Your task to perform on an android device: turn off picture-in-picture Image 0: 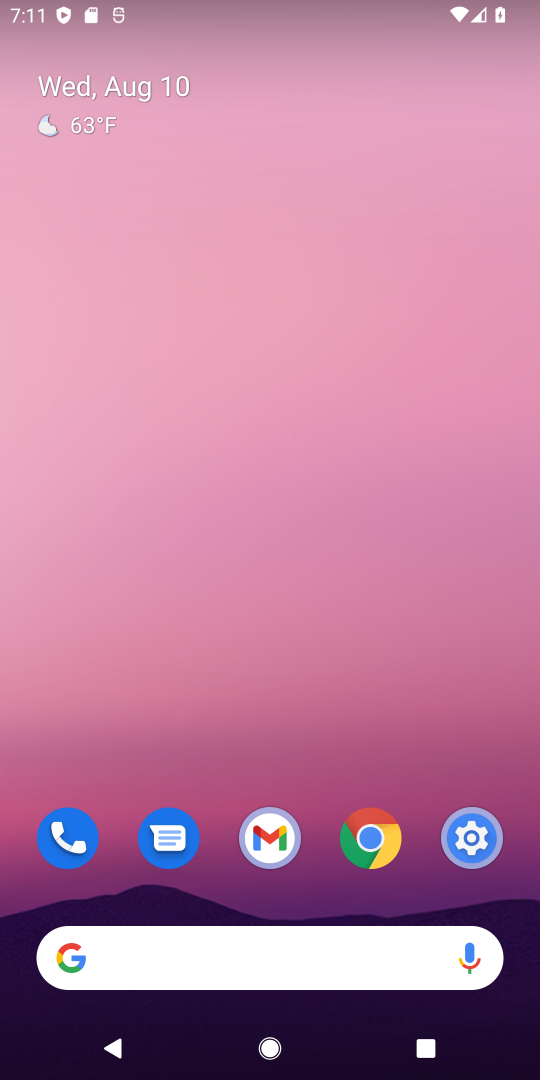
Step 0: click (371, 810)
Your task to perform on an android device: turn off picture-in-picture Image 1: 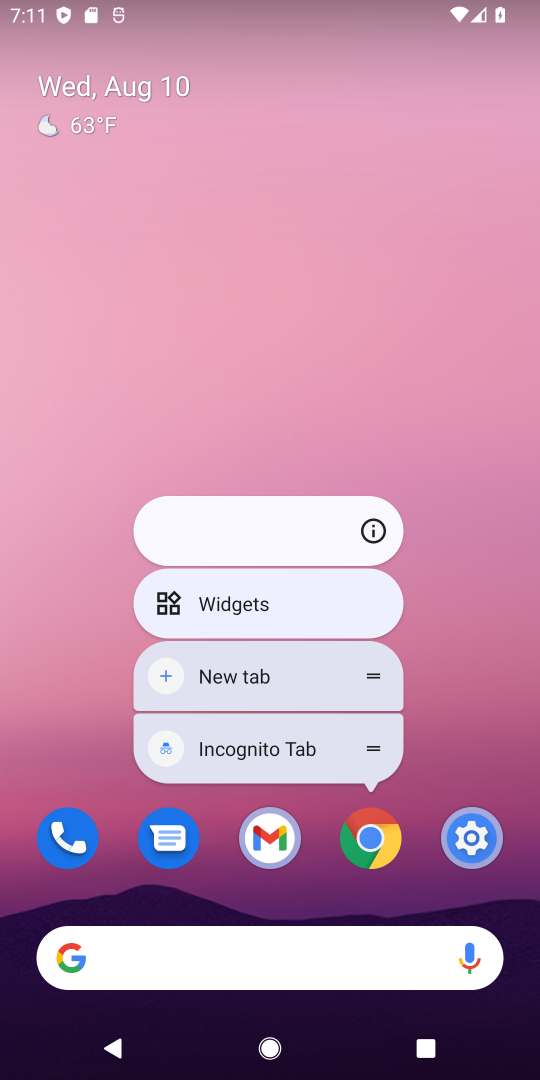
Step 1: click (367, 524)
Your task to perform on an android device: turn off picture-in-picture Image 2: 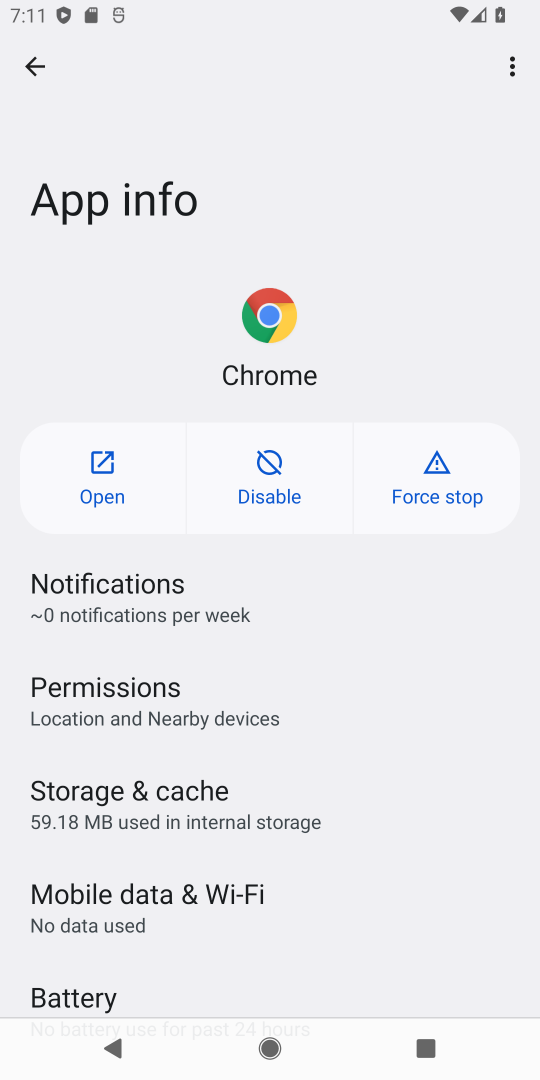
Step 2: drag from (308, 853) to (476, 103)
Your task to perform on an android device: turn off picture-in-picture Image 3: 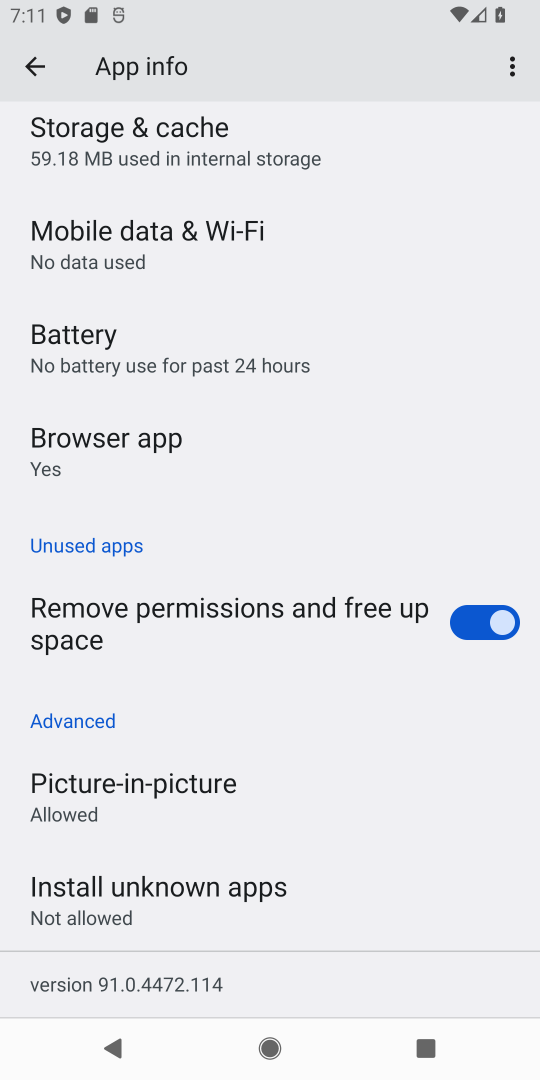
Step 3: drag from (269, 860) to (352, 195)
Your task to perform on an android device: turn off picture-in-picture Image 4: 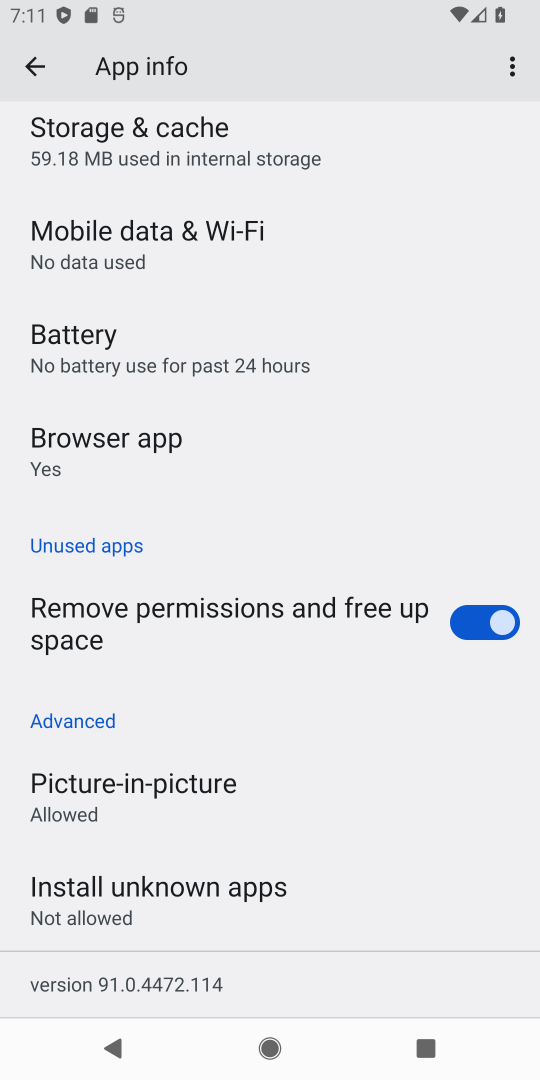
Step 4: click (209, 773)
Your task to perform on an android device: turn off picture-in-picture Image 5: 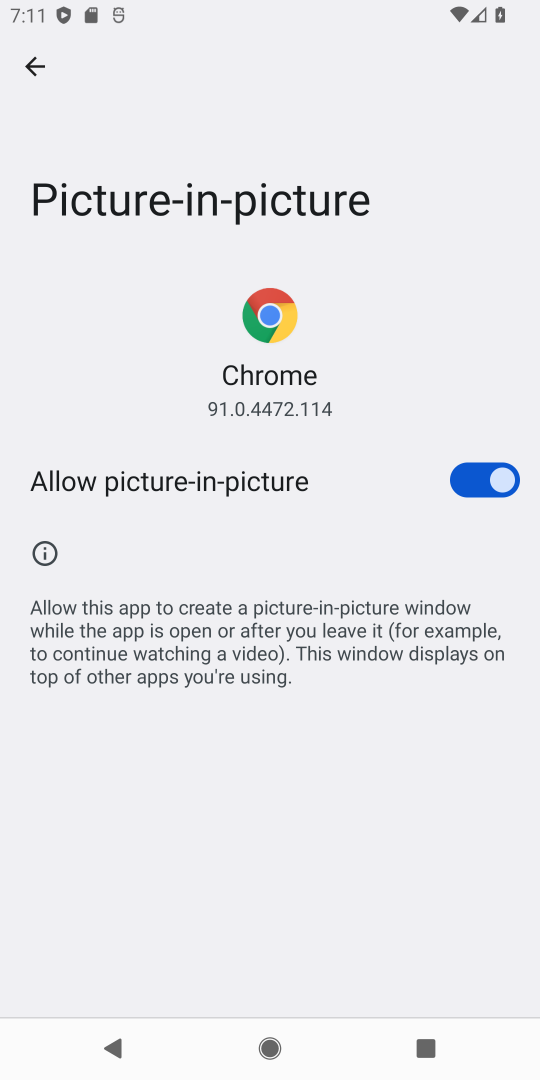
Step 5: click (201, 481)
Your task to perform on an android device: turn off picture-in-picture Image 6: 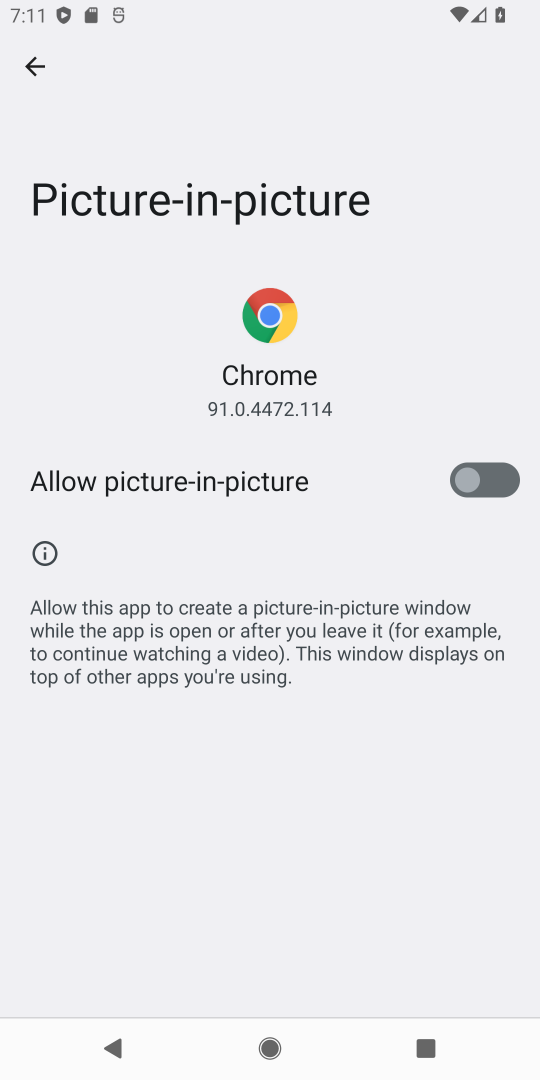
Step 6: task complete